Your task to perform on an android device: Turn on the flashlight Image 0: 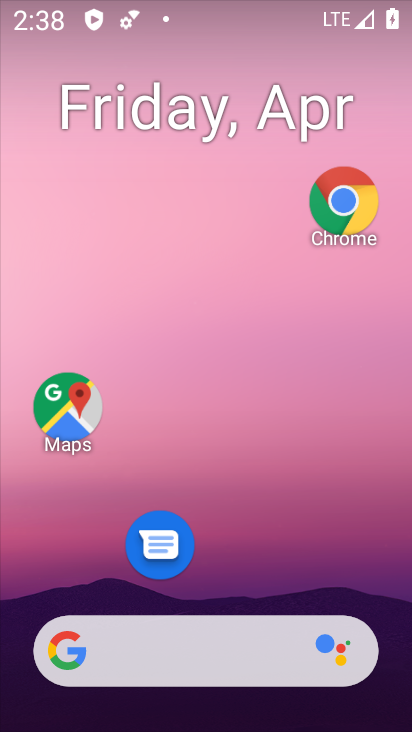
Step 0: drag from (222, 449) to (411, 2)
Your task to perform on an android device: Turn on the flashlight Image 1: 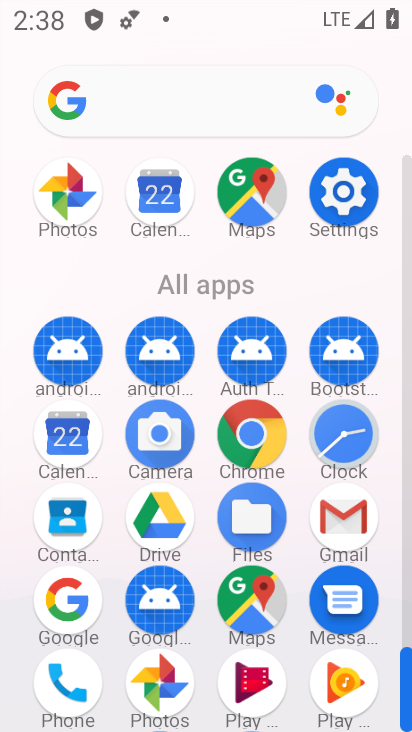
Step 1: click (352, 203)
Your task to perform on an android device: Turn on the flashlight Image 2: 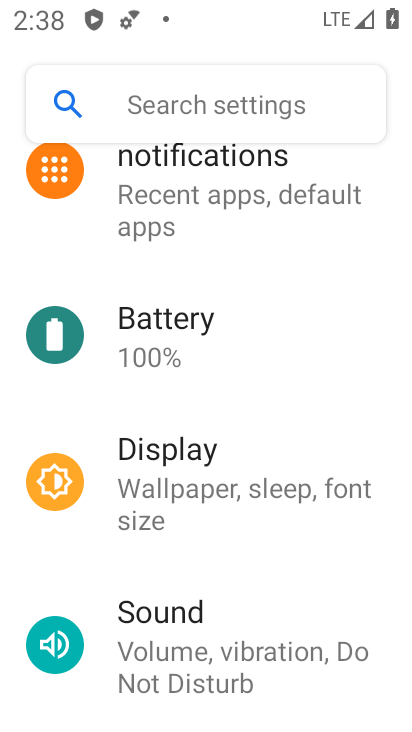
Step 2: click (231, 123)
Your task to perform on an android device: Turn on the flashlight Image 3: 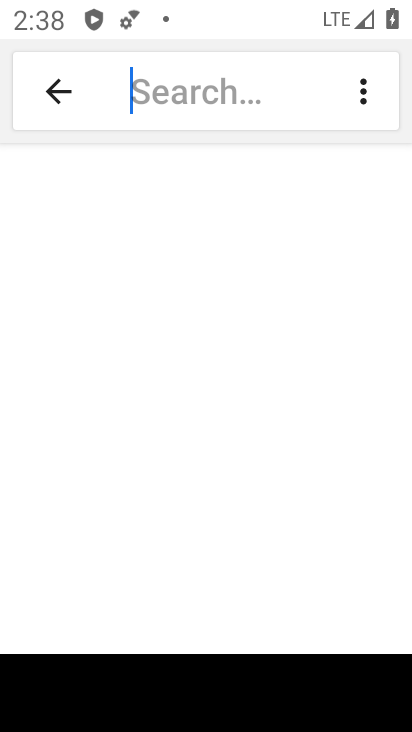
Step 3: type "flashlight"
Your task to perform on an android device: Turn on the flashlight Image 4: 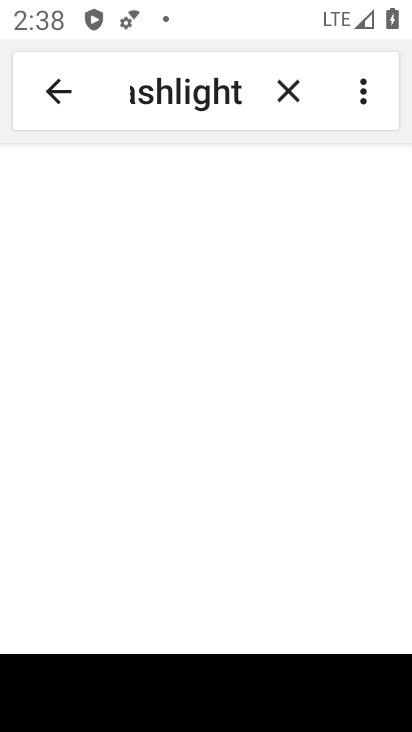
Step 4: task complete